Your task to perform on an android device: Check out the new nike air max 2020. Image 0: 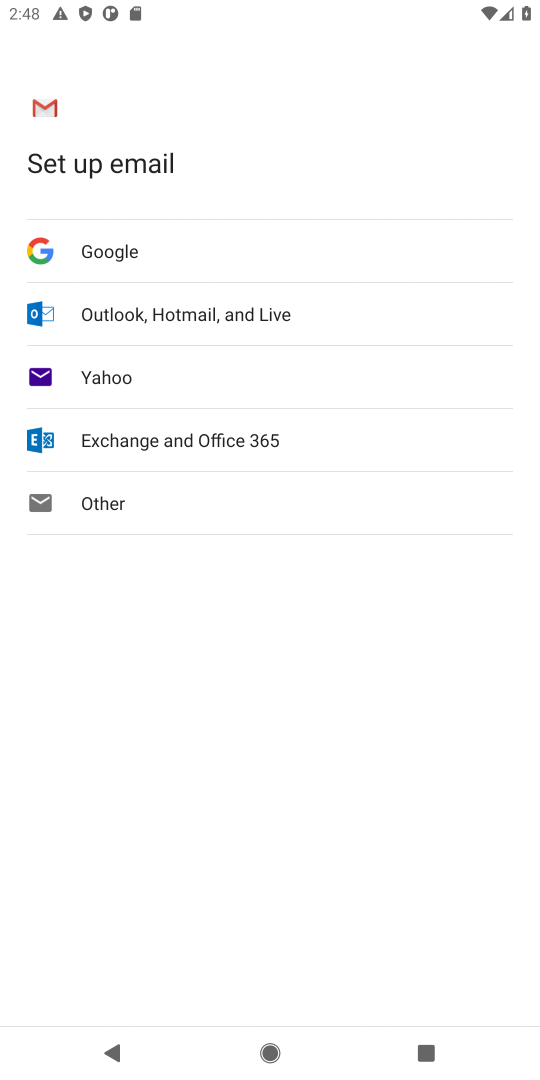
Step 0: press home button
Your task to perform on an android device: Check out the new nike air max 2020. Image 1: 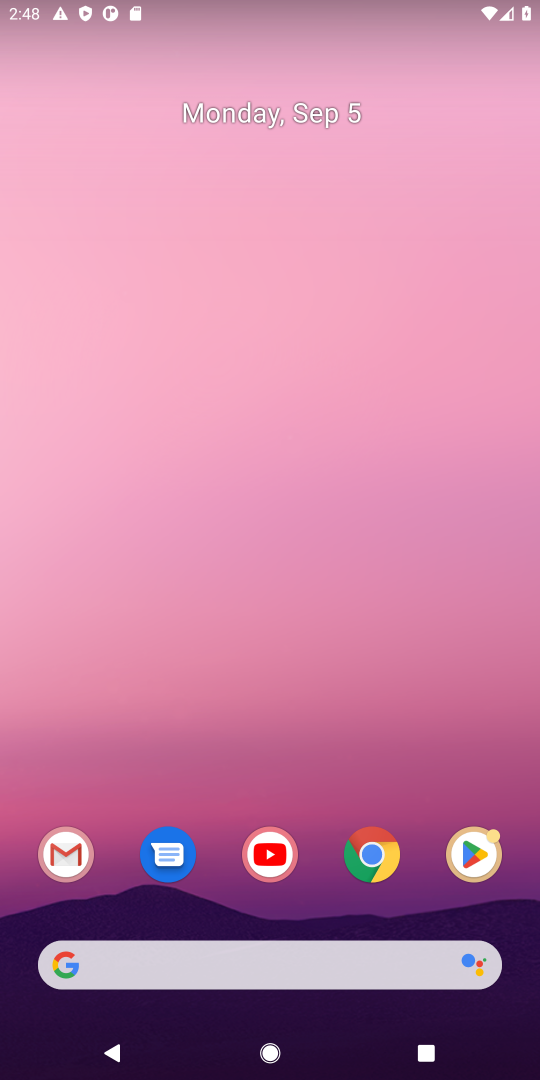
Step 1: click (295, 956)
Your task to perform on an android device: Check out the new nike air max 2020. Image 2: 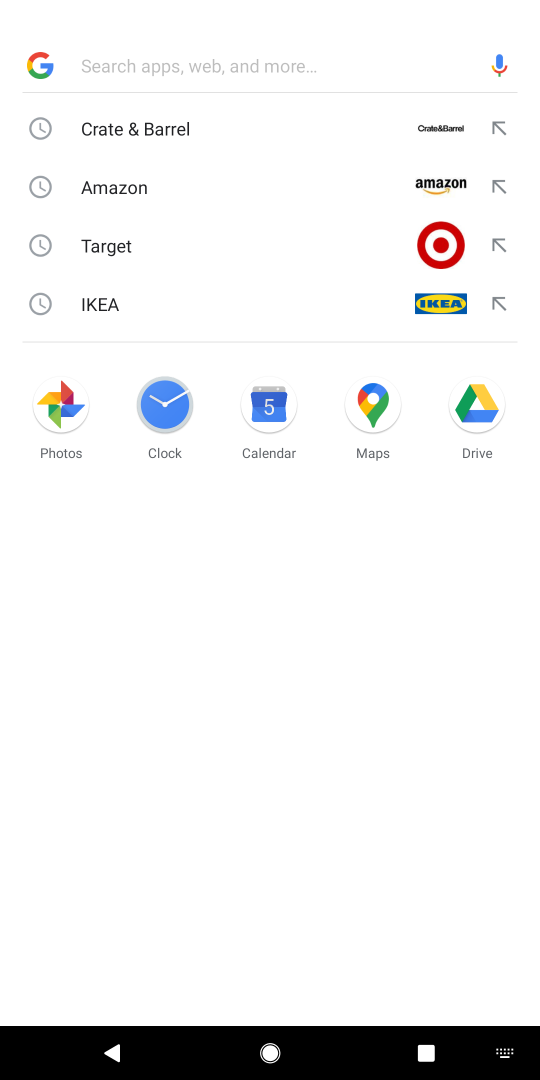
Step 2: type "new nike air max 2020"
Your task to perform on an android device: Check out the new nike air max 2020. Image 3: 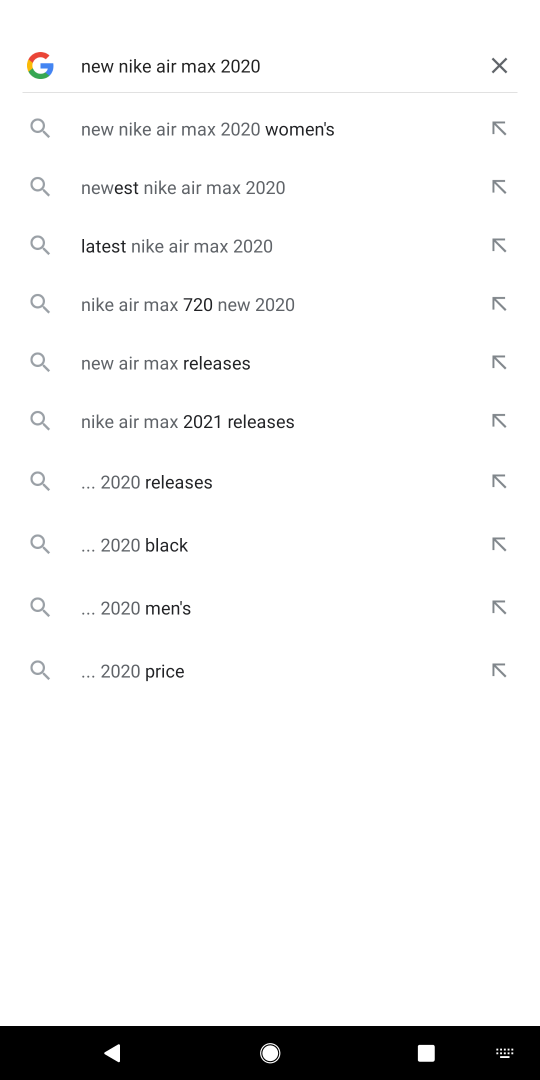
Step 3: press enter
Your task to perform on an android device: Check out the new nike air max 2020. Image 4: 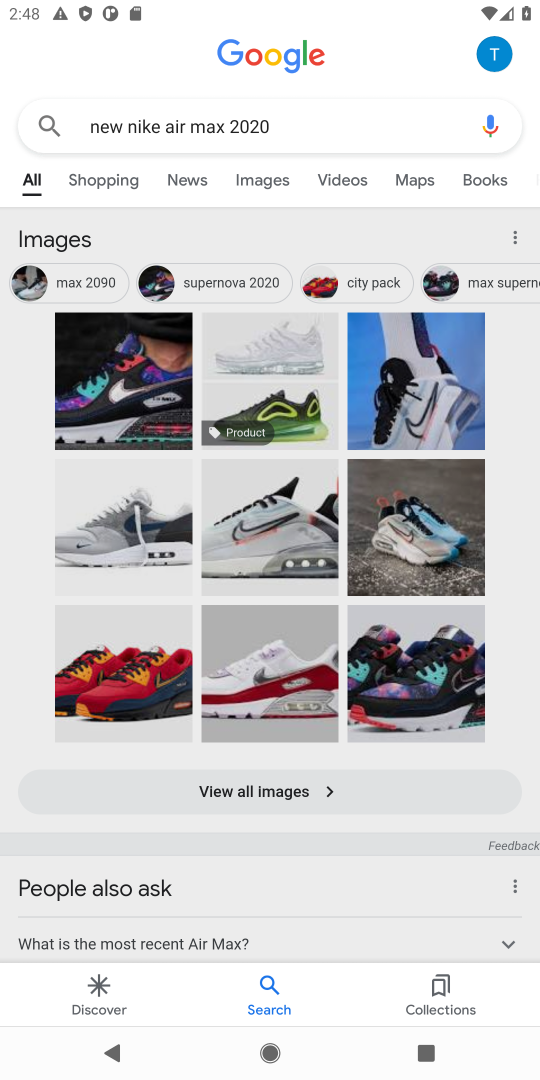
Step 4: task complete